Your task to perform on an android device: turn on notifications settings in the gmail app Image 0: 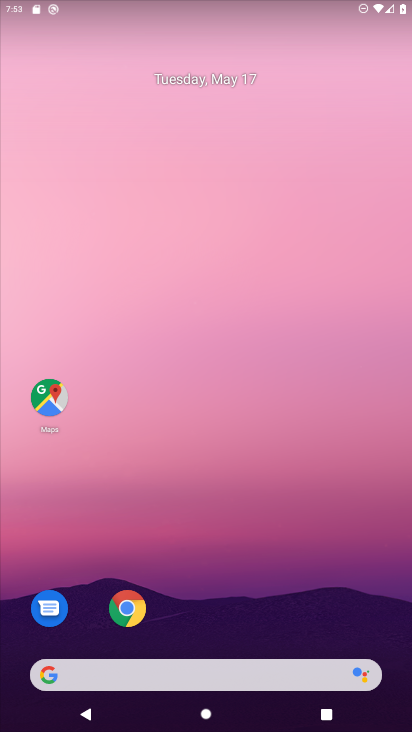
Step 0: drag from (205, 605) to (267, 157)
Your task to perform on an android device: turn on notifications settings in the gmail app Image 1: 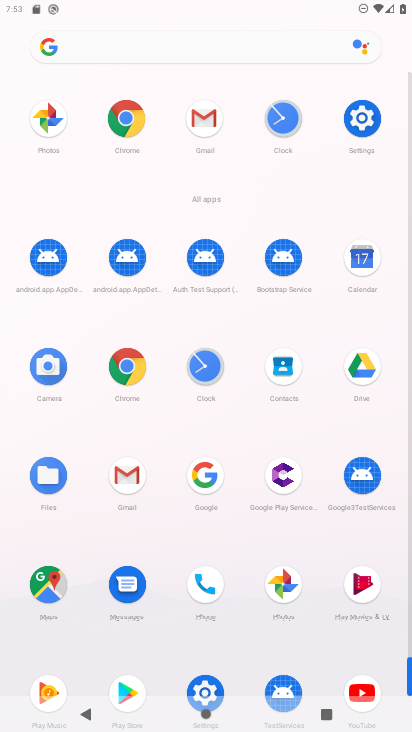
Step 1: click (124, 484)
Your task to perform on an android device: turn on notifications settings in the gmail app Image 2: 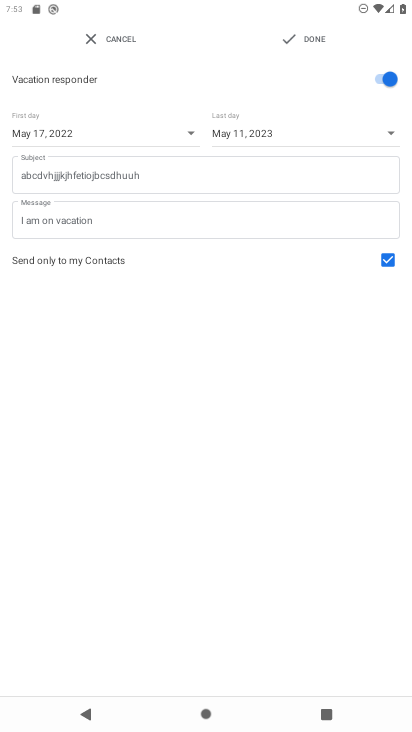
Step 2: press back button
Your task to perform on an android device: turn on notifications settings in the gmail app Image 3: 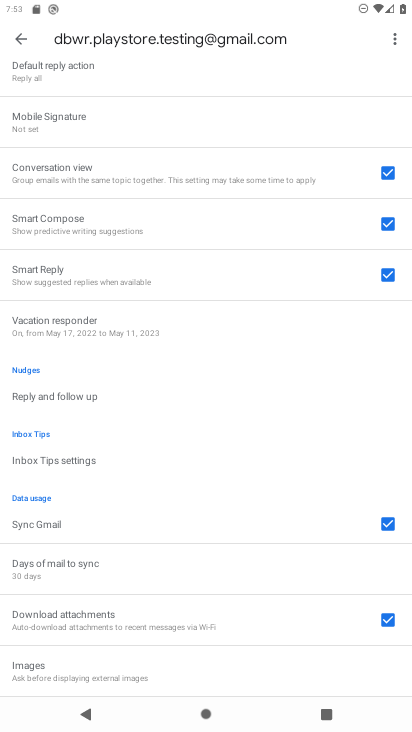
Step 3: drag from (203, 188) to (193, 430)
Your task to perform on an android device: turn on notifications settings in the gmail app Image 4: 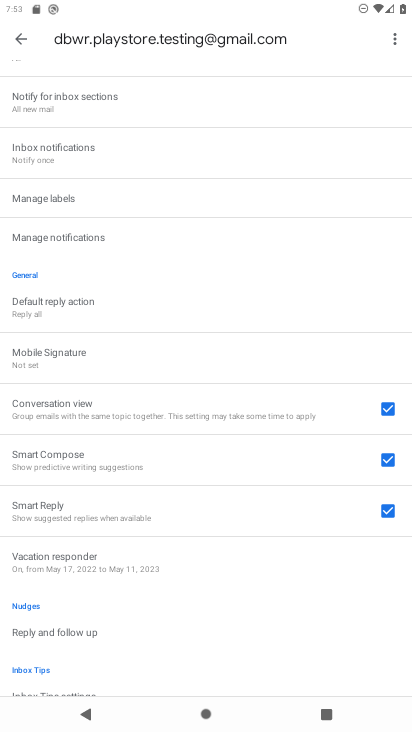
Step 4: click (22, 34)
Your task to perform on an android device: turn on notifications settings in the gmail app Image 5: 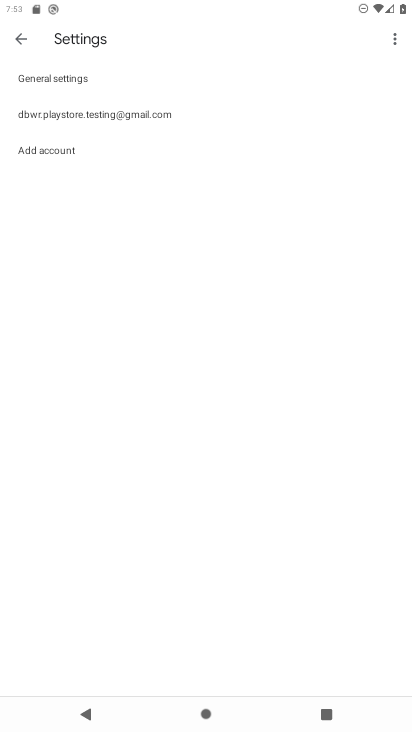
Step 5: click (82, 82)
Your task to perform on an android device: turn on notifications settings in the gmail app Image 6: 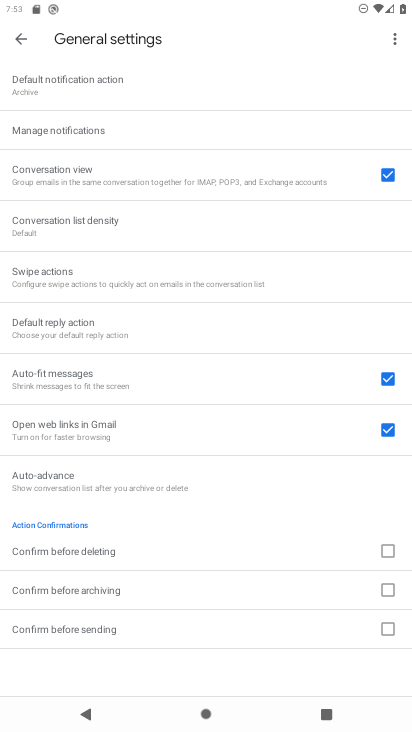
Step 6: click (97, 128)
Your task to perform on an android device: turn on notifications settings in the gmail app Image 7: 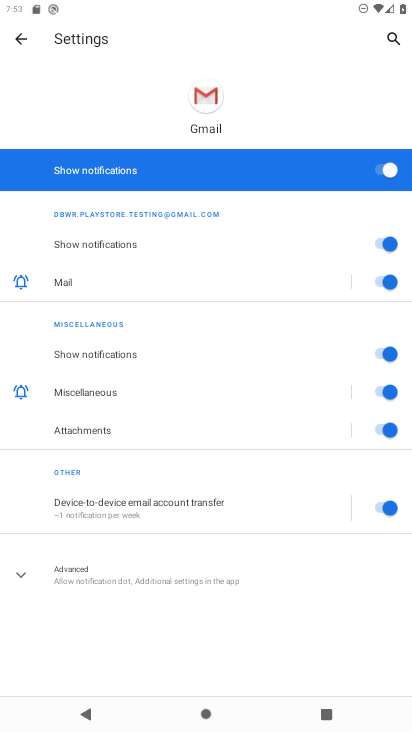
Step 7: task complete